Your task to perform on an android device: Open my contact list Image 0: 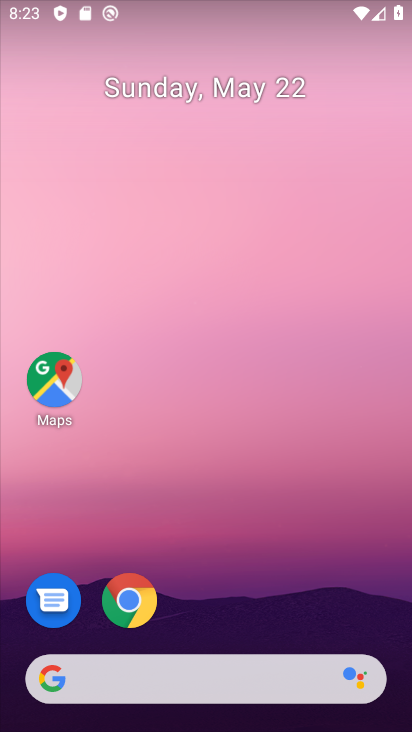
Step 0: drag from (226, 568) to (254, 4)
Your task to perform on an android device: Open my contact list Image 1: 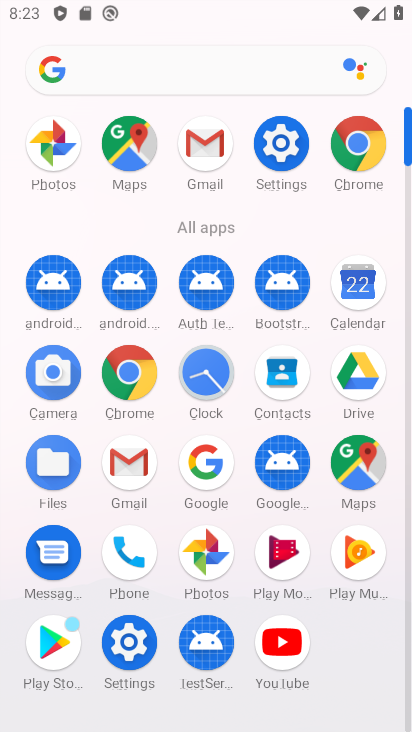
Step 1: click (274, 395)
Your task to perform on an android device: Open my contact list Image 2: 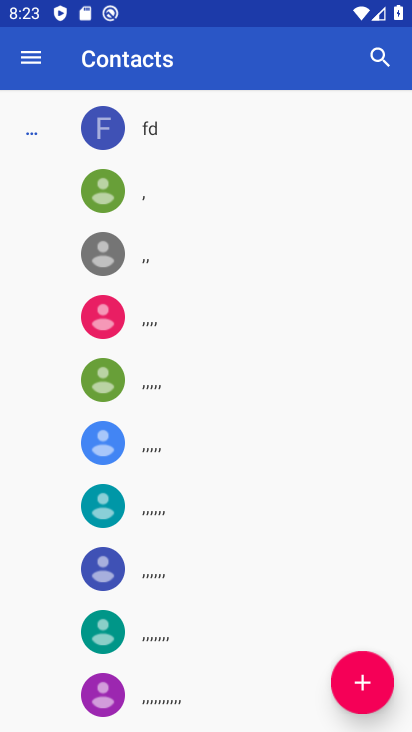
Step 2: task complete